Your task to perform on an android device: toggle data saver in the chrome app Image 0: 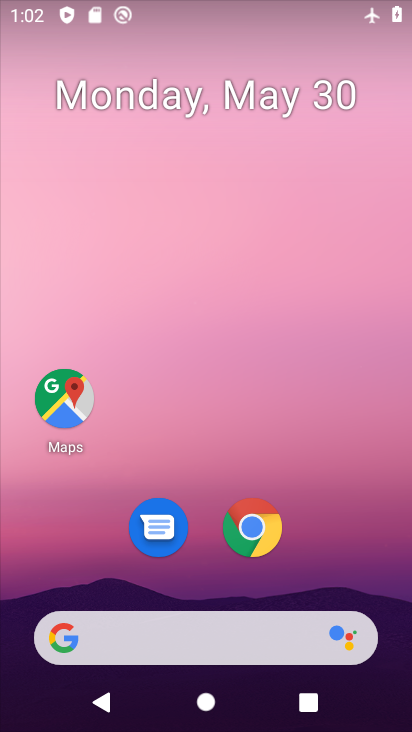
Step 0: click (254, 533)
Your task to perform on an android device: toggle data saver in the chrome app Image 1: 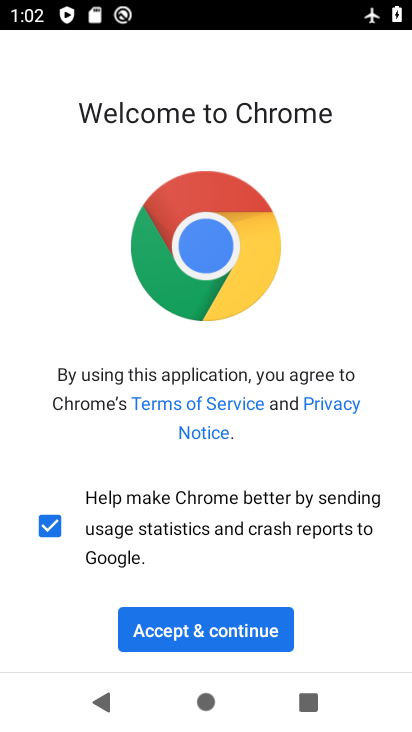
Step 1: click (204, 641)
Your task to perform on an android device: toggle data saver in the chrome app Image 2: 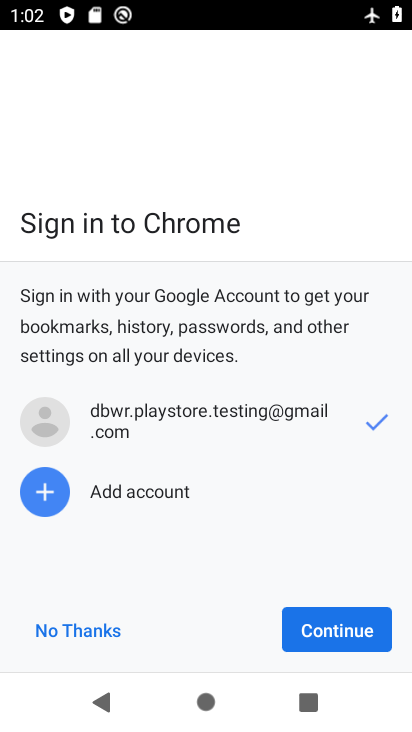
Step 2: click (347, 627)
Your task to perform on an android device: toggle data saver in the chrome app Image 3: 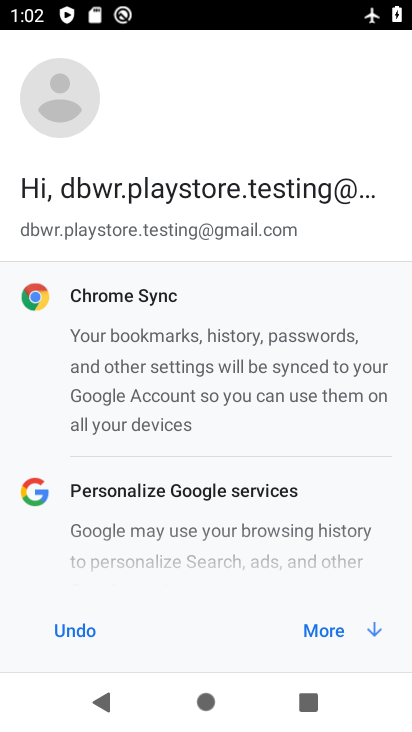
Step 3: click (348, 627)
Your task to perform on an android device: toggle data saver in the chrome app Image 4: 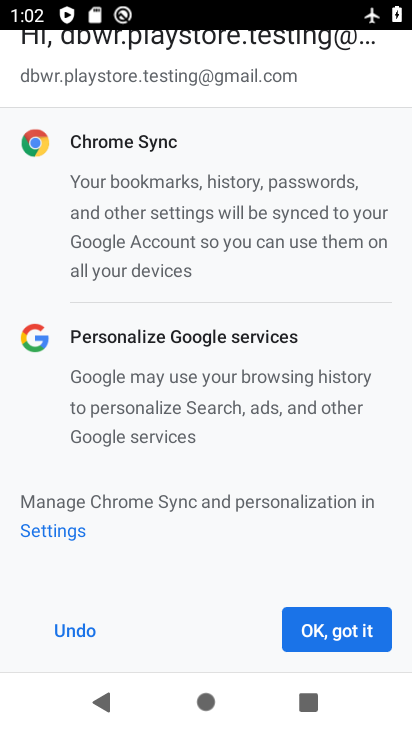
Step 4: click (348, 627)
Your task to perform on an android device: toggle data saver in the chrome app Image 5: 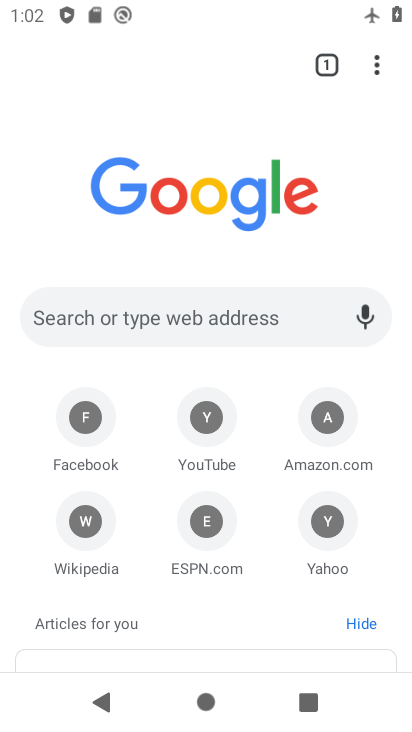
Step 5: click (363, 58)
Your task to perform on an android device: toggle data saver in the chrome app Image 6: 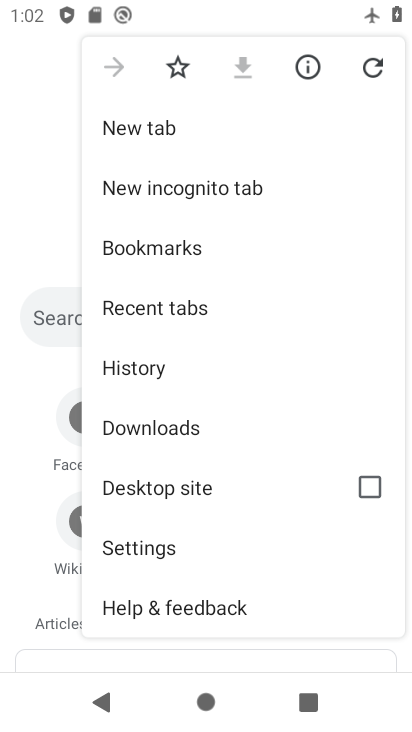
Step 6: click (161, 555)
Your task to perform on an android device: toggle data saver in the chrome app Image 7: 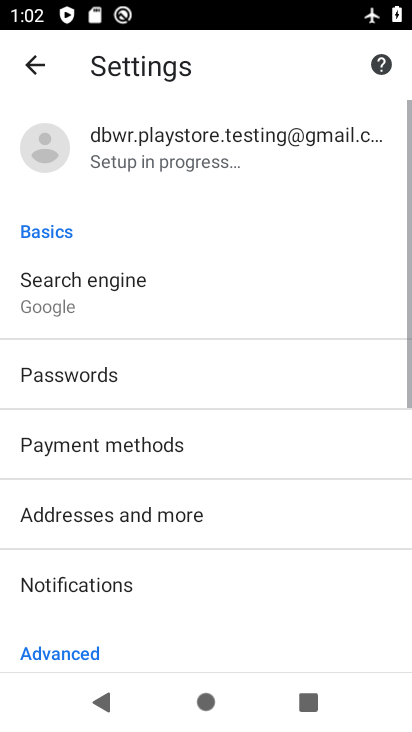
Step 7: drag from (139, 563) to (186, 297)
Your task to perform on an android device: toggle data saver in the chrome app Image 8: 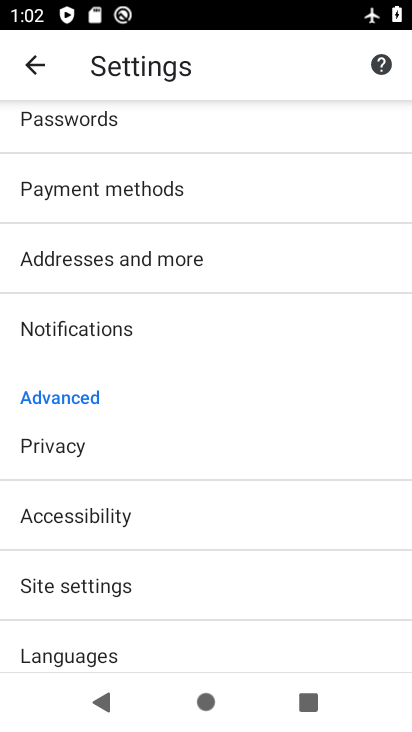
Step 8: drag from (151, 541) to (183, 56)
Your task to perform on an android device: toggle data saver in the chrome app Image 9: 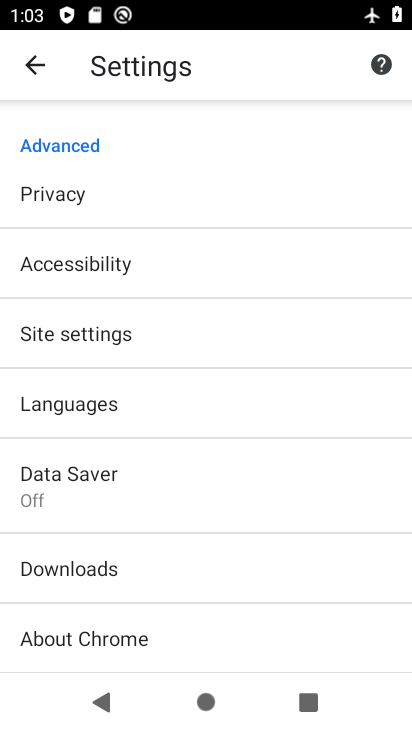
Step 9: click (112, 500)
Your task to perform on an android device: toggle data saver in the chrome app Image 10: 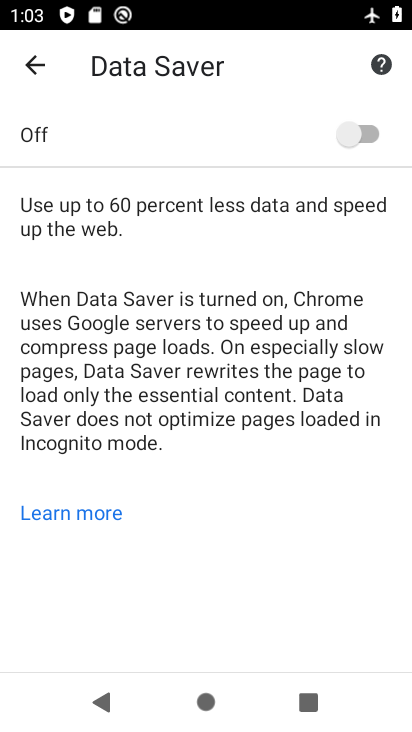
Step 10: click (338, 132)
Your task to perform on an android device: toggle data saver in the chrome app Image 11: 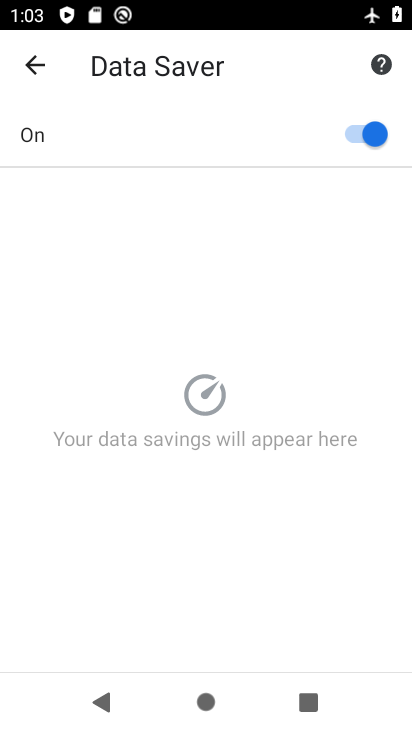
Step 11: task complete